Your task to perform on an android device: Open the map Image 0: 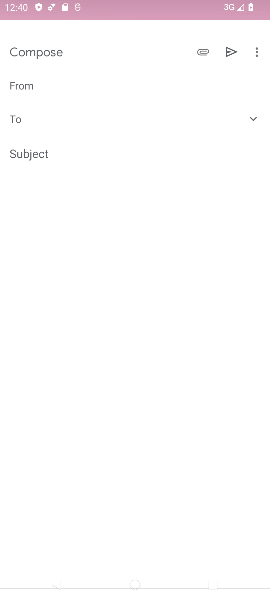
Step 0: press home button
Your task to perform on an android device: Open the map Image 1: 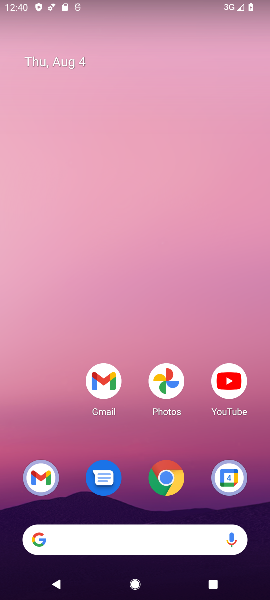
Step 1: drag from (62, 381) to (178, 13)
Your task to perform on an android device: Open the map Image 2: 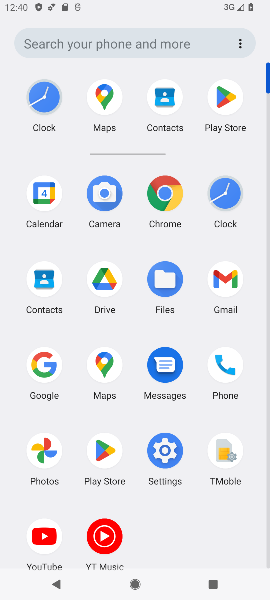
Step 2: click (94, 383)
Your task to perform on an android device: Open the map Image 3: 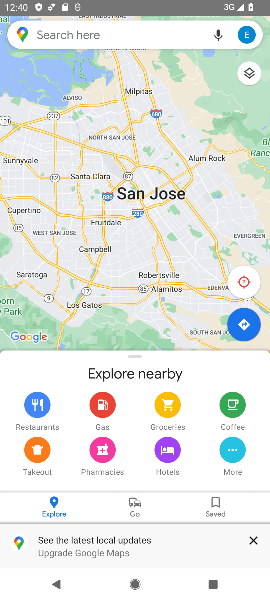
Step 3: click (85, 31)
Your task to perform on an android device: Open the map Image 4: 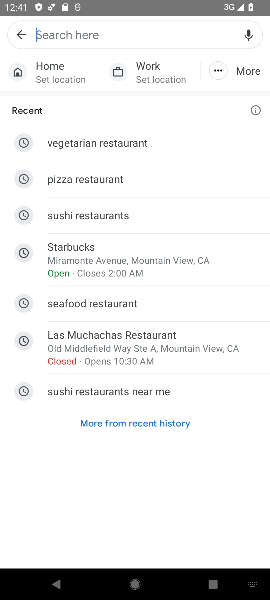
Step 4: click (18, 28)
Your task to perform on an android device: Open the map Image 5: 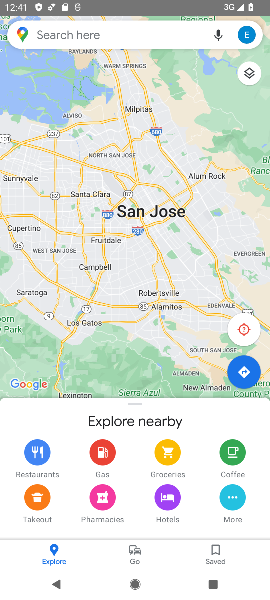
Step 5: task complete